Your task to perform on an android device: see sites visited before in the chrome app Image 0: 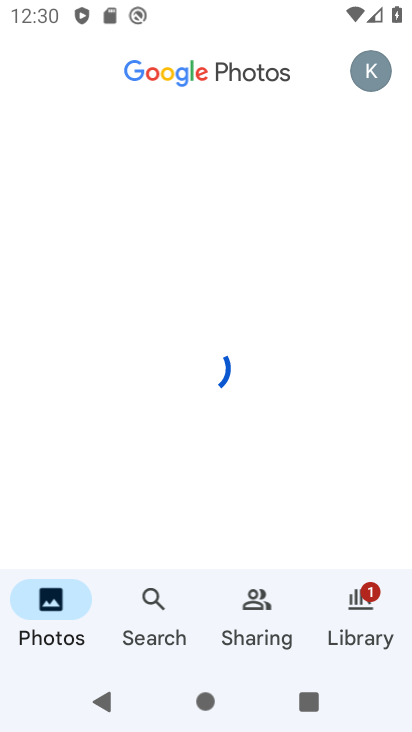
Step 0: press home button
Your task to perform on an android device: see sites visited before in the chrome app Image 1: 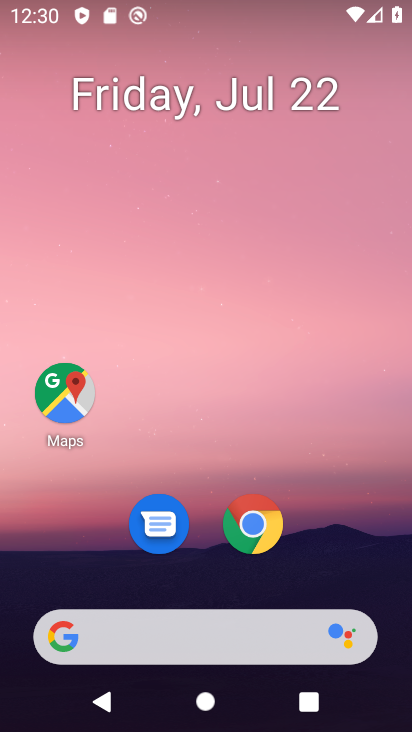
Step 1: click (245, 525)
Your task to perform on an android device: see sites visited before in the chrome app Image 2: 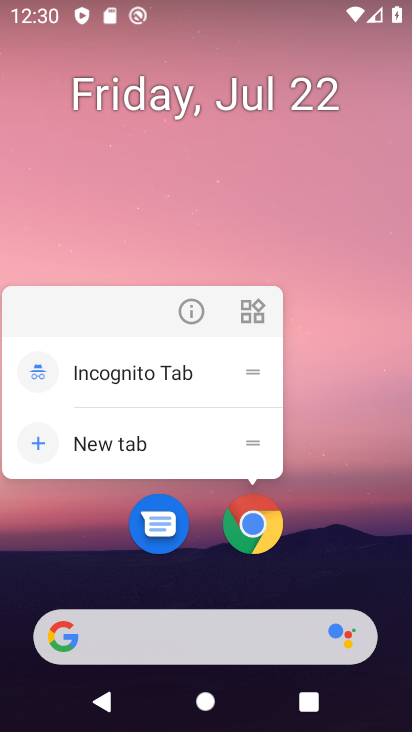
Step 2: click (256, 530)
Your task to perform on an android device: see sites visited before in the chrome app Image 3: 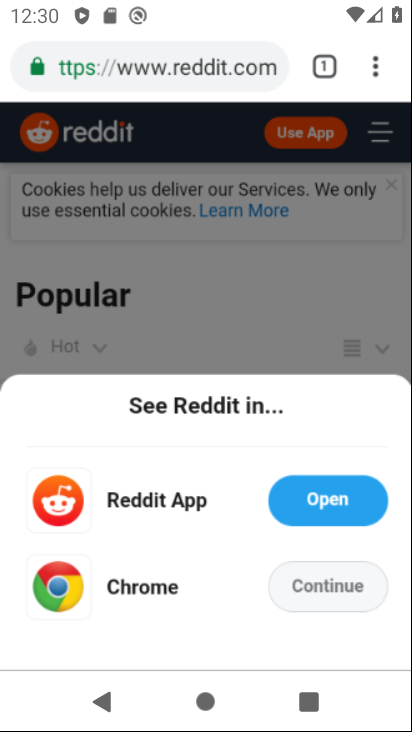
Step 3: click (256, 530)
Your task to perform on an android device: see sites visited before in the chrome app Image 4: 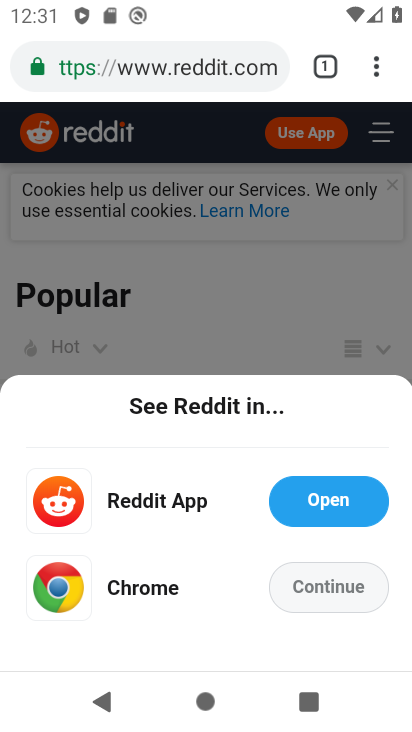
Step 4: task complete